Your task to perform on an android device: toggle wifi Image 0: 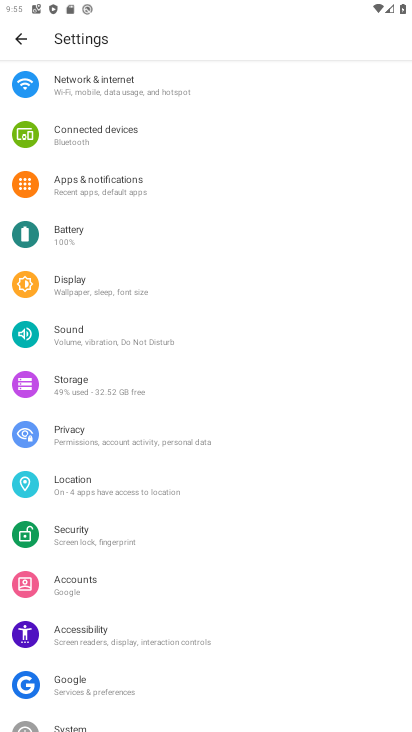
Step 0: drag from (206, 188) to (202, 723)
Your task to perform on an android device: toggle wifi Image 1: 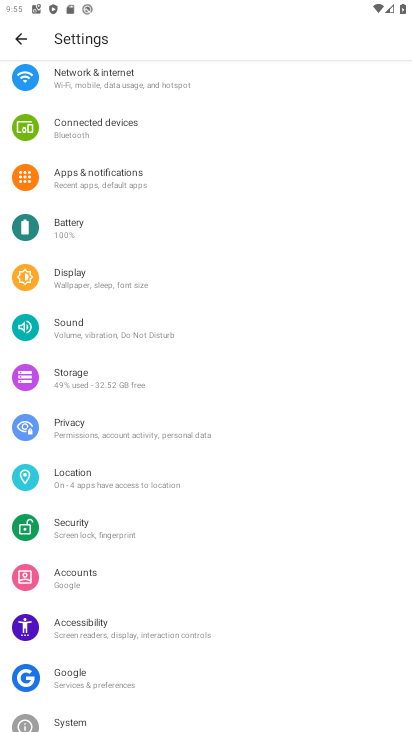
Step 1: click (107, 86)
Your task to perform on an android device: toggle wifi Image 2: 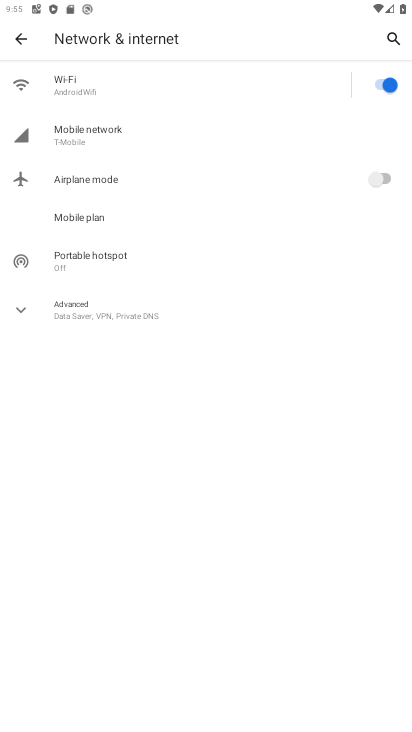
Step 2: click (153, 89)
Your task to perform on an android device: toggle wifi Image 3: 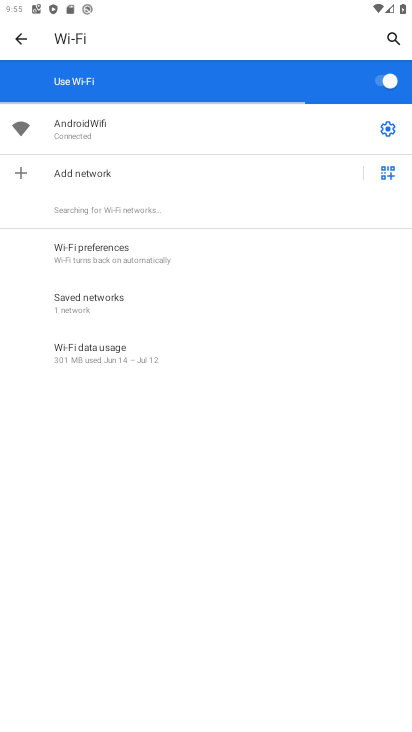
Step 3: click (371, 82)
Your task to perform on an android device: toggle wifi Image 4: 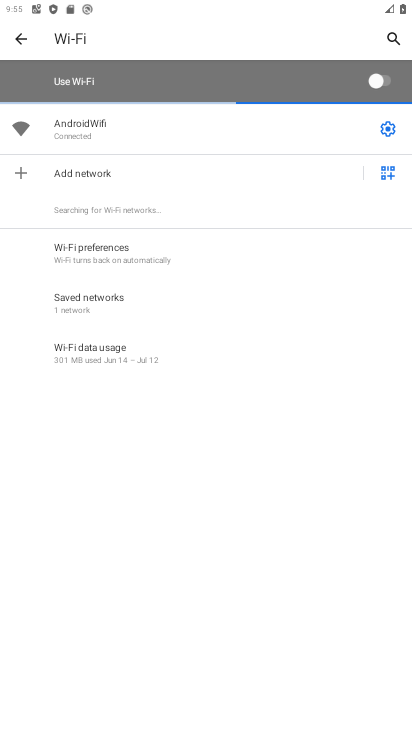
Step 4: task complete